Your task to perform on an android device: turn on sleep mode Image 0: 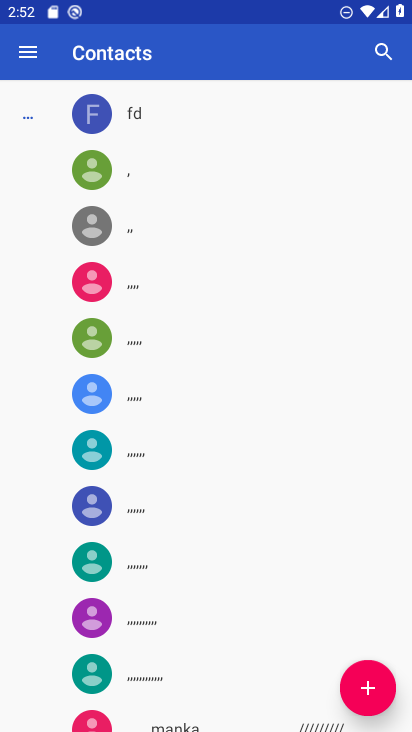
Step 0: press home button
Your task to perform on an android device: turn on sleep mode Image 1: 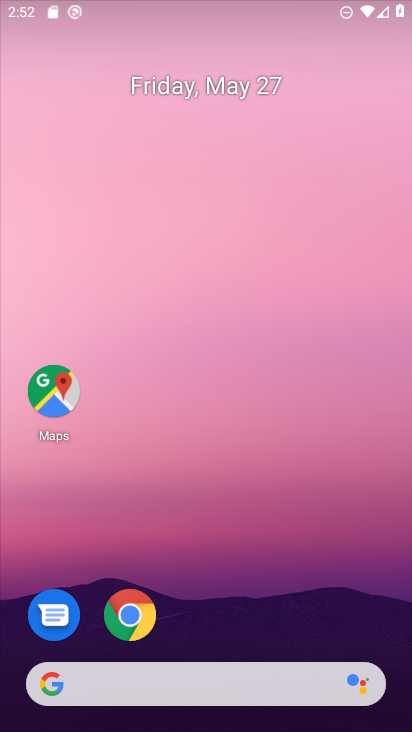
Step 1: drag from (262, 394) to (175, 37)
Your task to perform on an android device: turn on sleep mode Image 2: 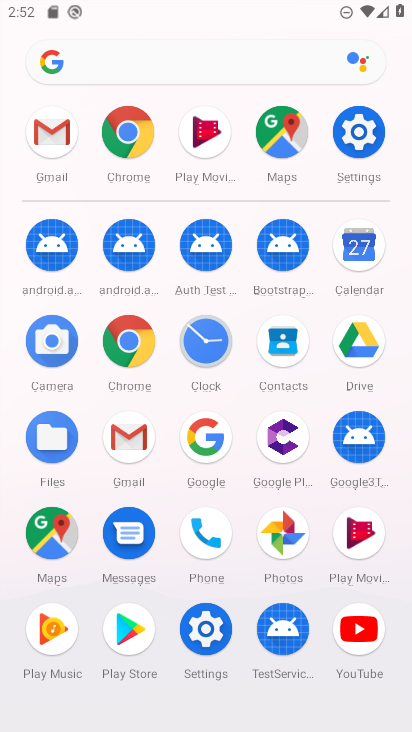
Step 2: click (357, 128)
Your task to perform on an android device: turn on sleep mode Image 3: 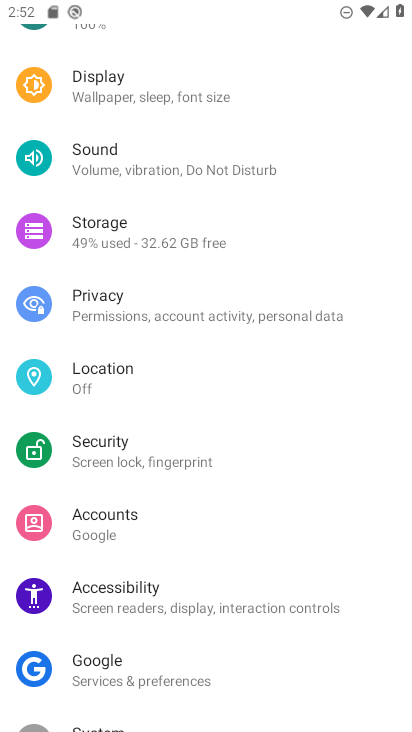
Step 3: click (199, 83)
Your task to perform on an android device: turn on sleep mode Image 4: 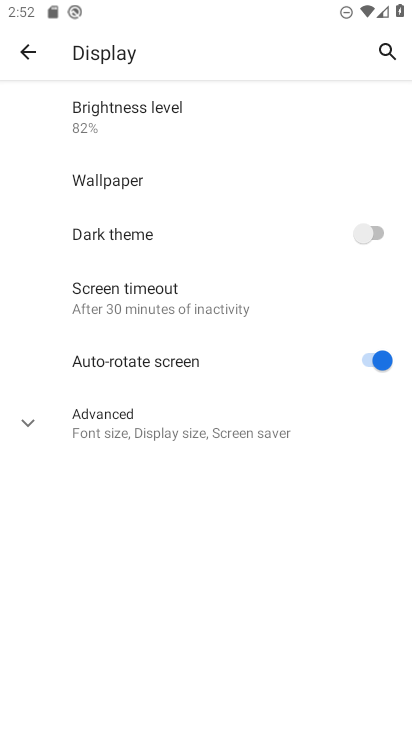
Step 4: task complete